Your task to perform on an android device: Go to eBay Image 0: 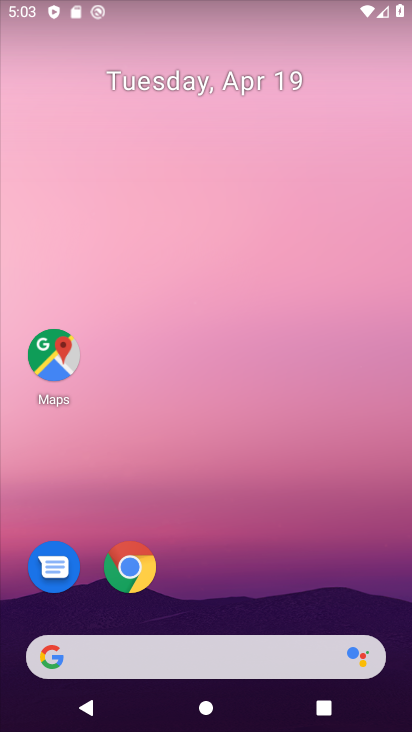
Step 0: drag from (184, 396) to (218, 20)
Your task to perform on an android device: Go to eBay Image 1: 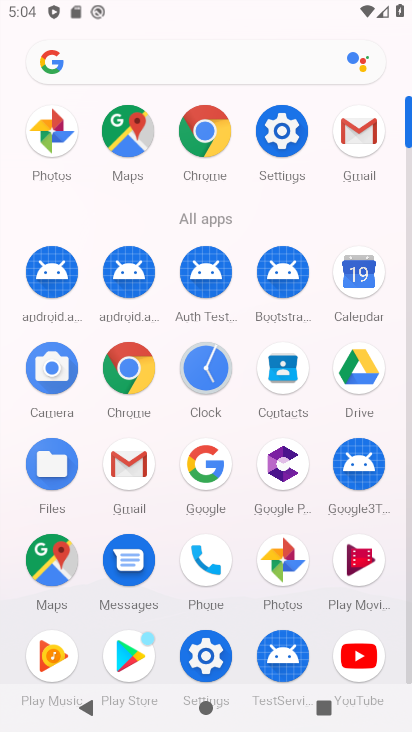
Step 1: click (129, 373)
Your task to perform on an android device: Go to eBay Image 2: 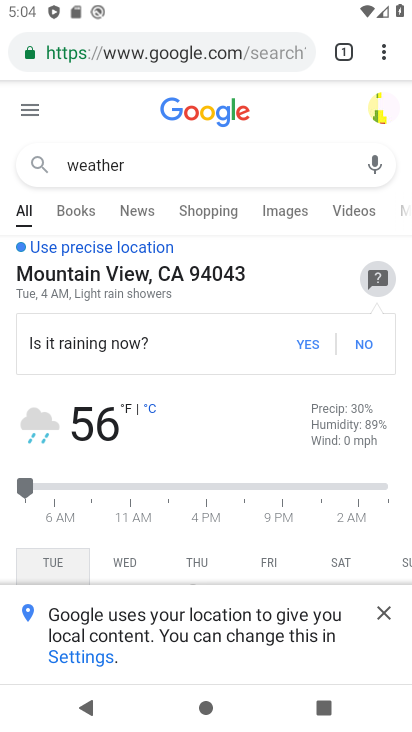
Step 2: click (383, 52)
Your task to perform on an android device: Go to eBay Image 3: 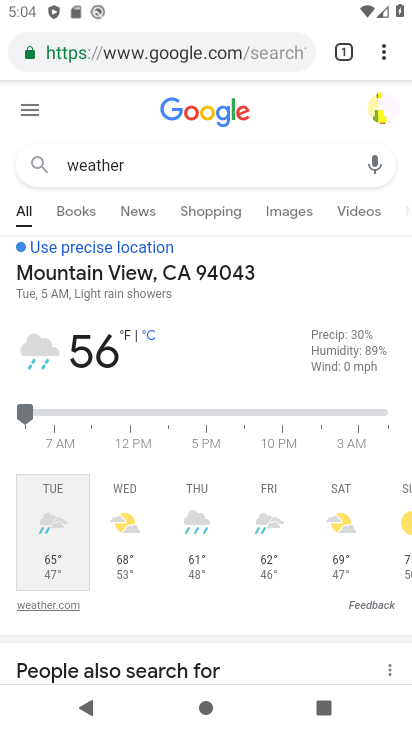
Step 3: drag from (385, 52) to (192, 103)
Your task to perform on an android device: Go to eBay Image 4: 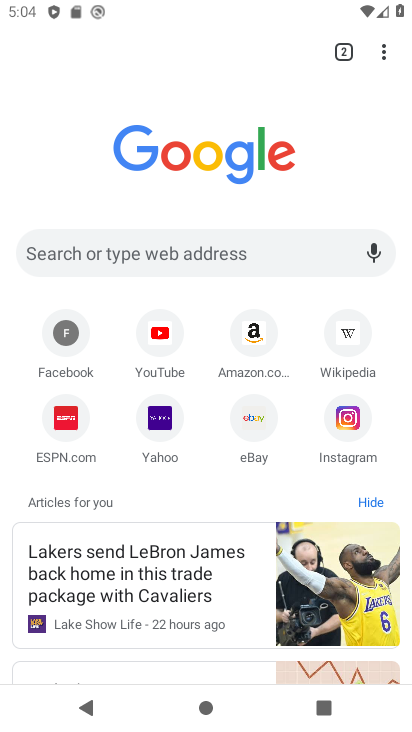
Step 4: click (246, 428)
Your task to perform on an android device: Go to eBay Image 5: 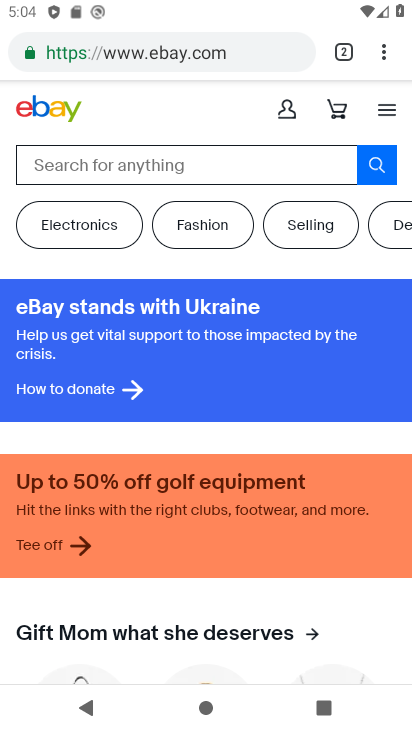
Step 5: task complete